Your task to perform on an android device: Open network settings Image 0: 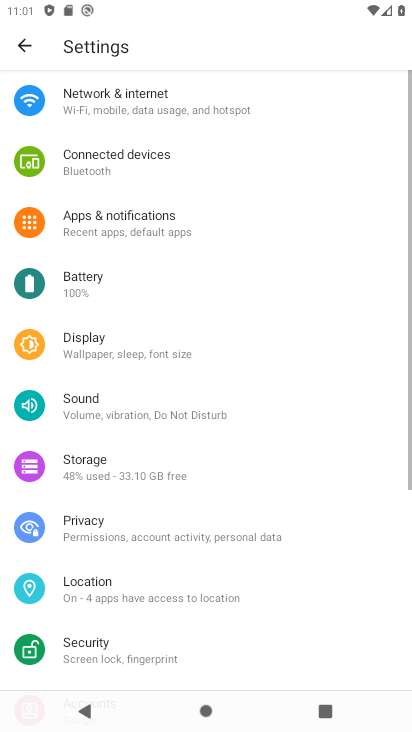
Step 0: click (163, 109)
Your task to perform on an android device: Open network settings Image 1: 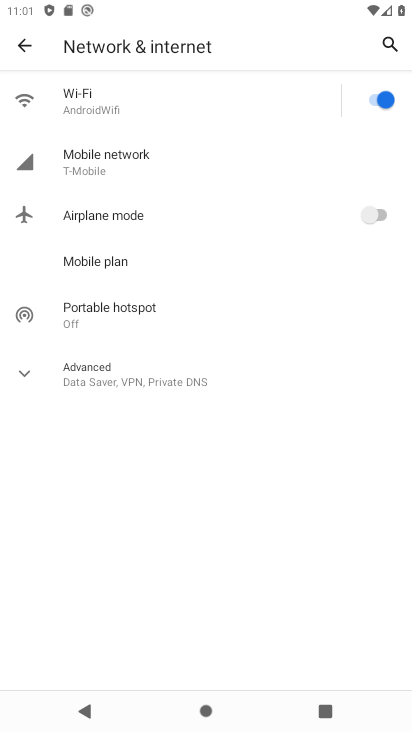
Step 1: task complete